Your task to perform on an android device: turn off sleep mode Image 0: 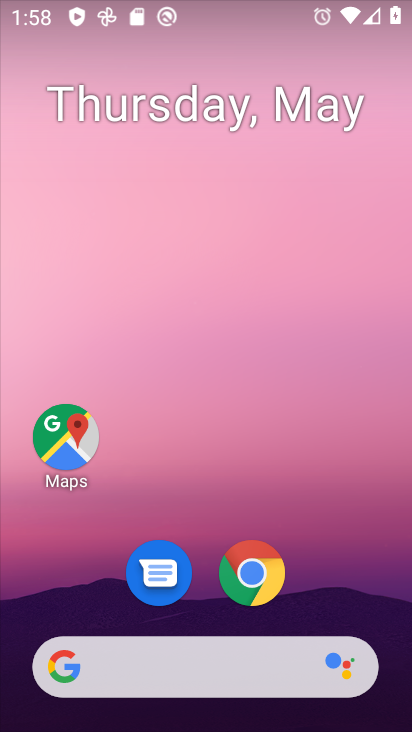
Step 0: drag from (383, 660) to (333, 276)
Your task to perform on an android device: turn off sleep mode Image 1: 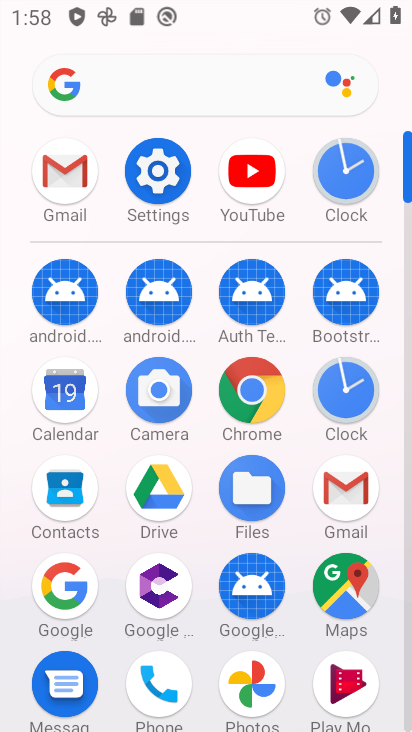
Step 1: click (168, 174)
Your task to perform on an android device: turn off sleep mode Image 2: 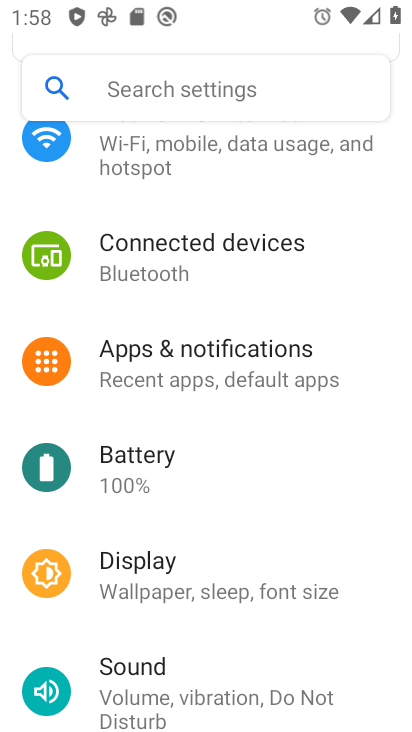
Step 2: click (131, 573)
Your task to perform on an android device: turn off sleep mode Image 3: 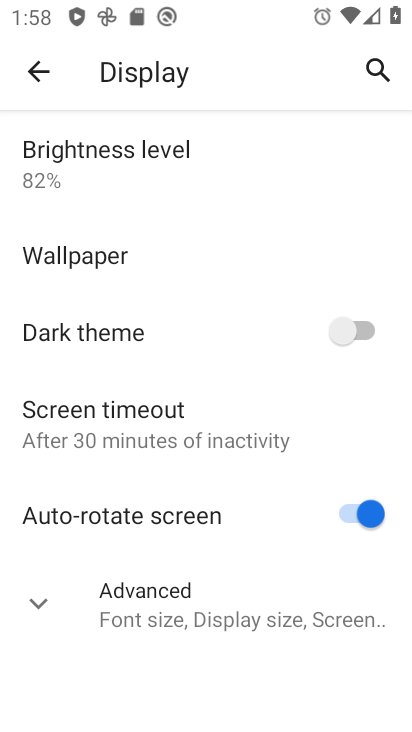
Step 3: click (109, 431)
Your task to perform on an android device: turn off sleep mode Image 4: 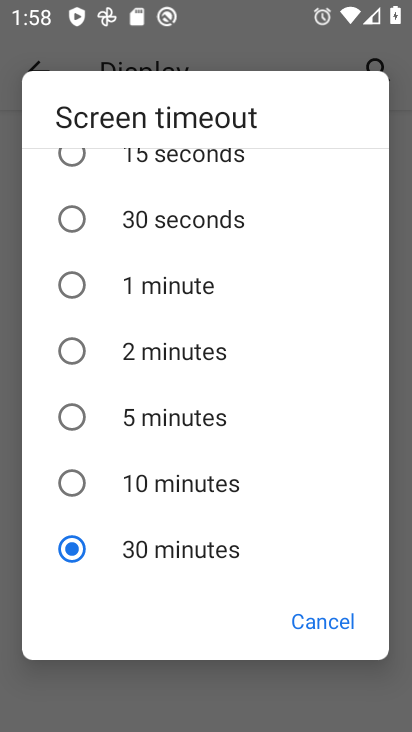
Step 4: task complete